Your task to perform on an android device: View the shopping cart on target.com. Image 0: 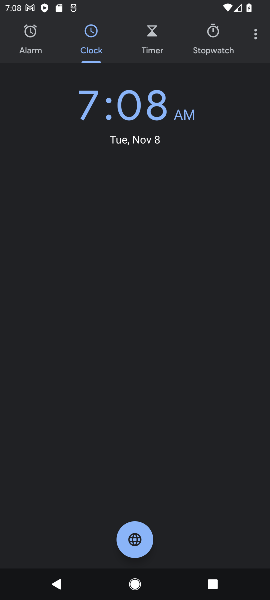
Step 0: press home button
Your task to perform on an android device: View the shopping cart on target.com. Image 1: 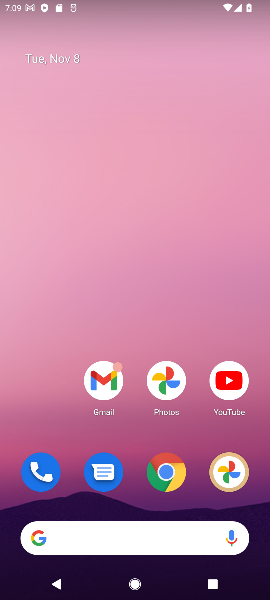
Step 1: click (176, 476)
Your task to perform on an android device: View the shopping cart on target.com. Image 2: 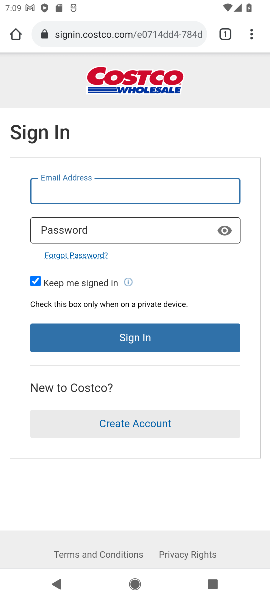
Step 2: click (154, 26)
Your task to perform on an android device: View the shopping cart on target.com. Image 3: 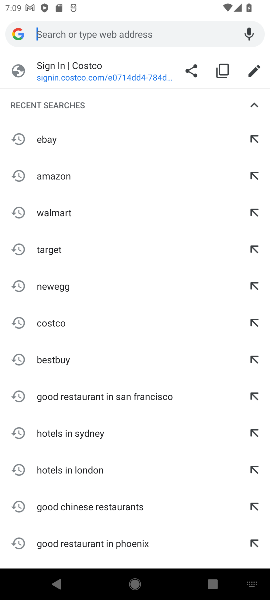
Step 3: click (39, 243)
Your task to perform on an android device: View the shopping cart on target.com. Image 4: 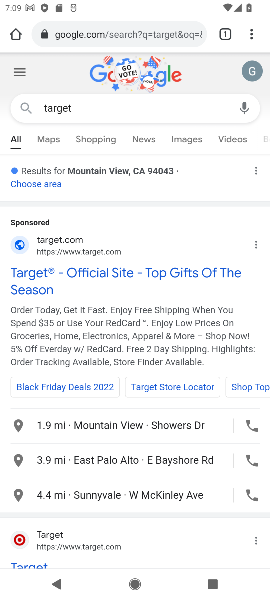
Step 4: click (89, 272)
Your task to perform on an android device: View the shopping cart on target.com. Image 5: 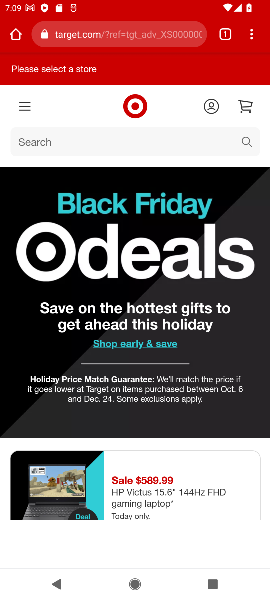
Step 5: click (62, 141)
Your task to perform on an android device: View the shopping cart on target.com. Image 6: 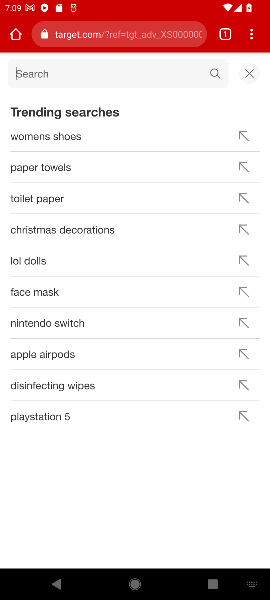
Step 6: click (245, 73)
Your task to perform on an android device: View the shopping cart on target.com. Image 7: 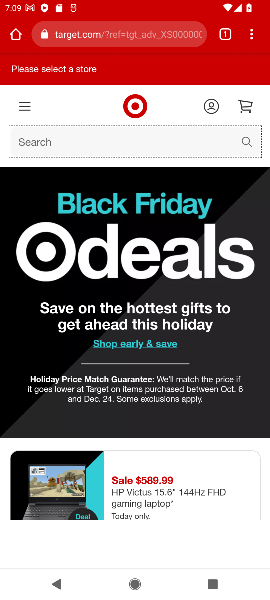
Step 7: click (249, 104)
Your task to perform on an android device: View the shopping cart on target.com. Image 8: 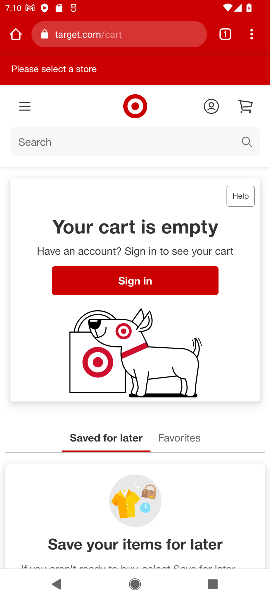
Step 8: task complete